Your task to perform on an android device: open a new tab in the chrome app Image 0: 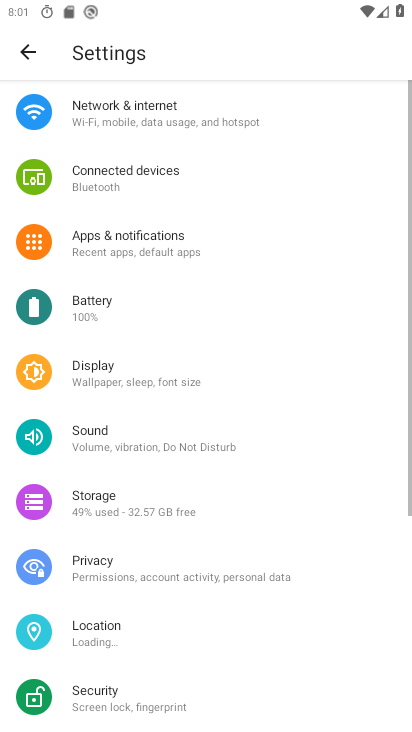
Step 0: press home button
Your task to perform on an android device: open a new tab in the chrome app Image 1: 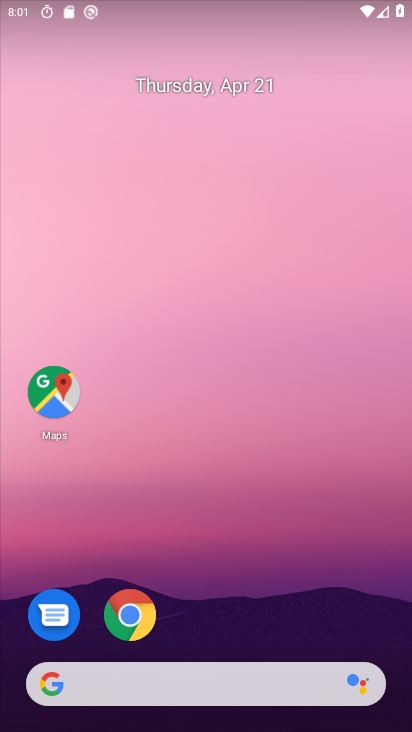
Step 1: drag from (154, 643) to (258, 87)
Your task to perform on an android device: open a new tab in the chrome app Image 2: 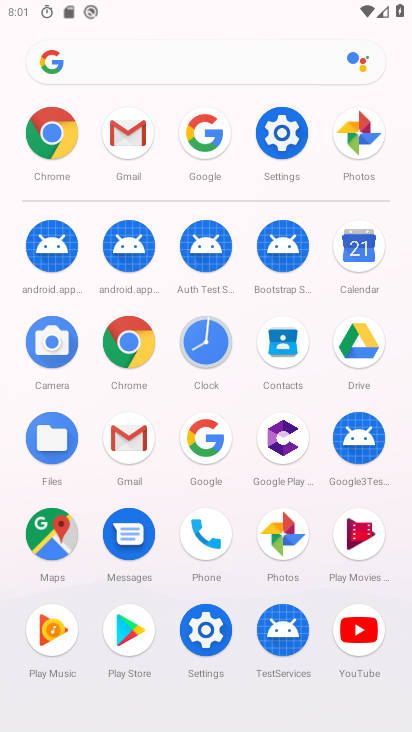
Step 2: click (63, 139)
Your task to perform on an android device: open a new tab in the chrome app Image 3: 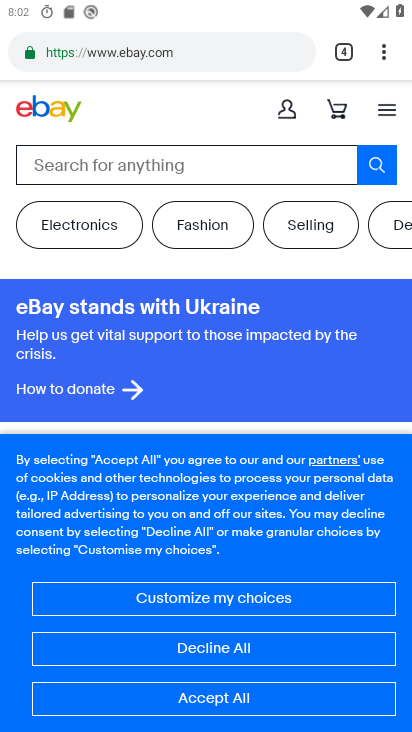
Step 3: click (324, 98)
Your task to perform on an android device: open a new tab in the chrome app Image 4: 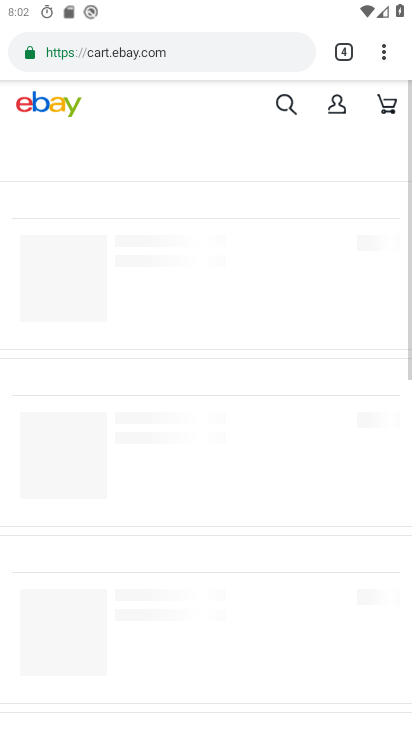
Step 4: click (376, 63)
Your task to perform on an android device: open a new tab in the chrome app Image 5: 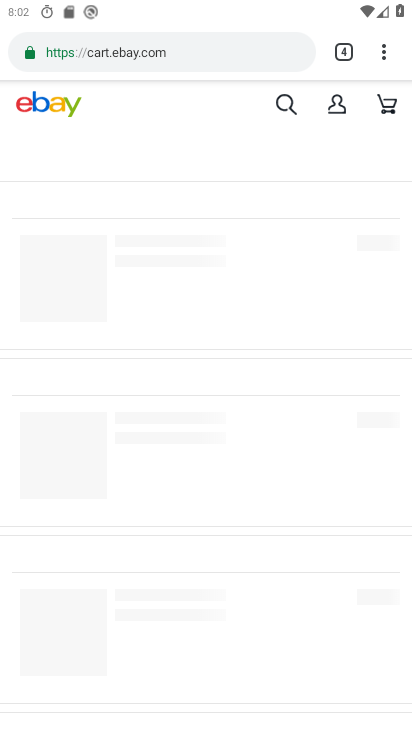
Step 5: click (371, 64)
Your task to perform on an android device: open a new tab in the chrome app Image 6: 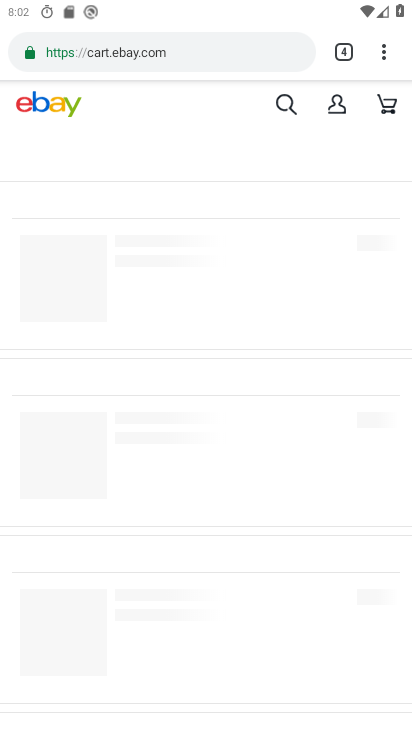
Step 6: click (383, 63)
Your task to perform on an android device: open a new tab in the chrome app Image 7: 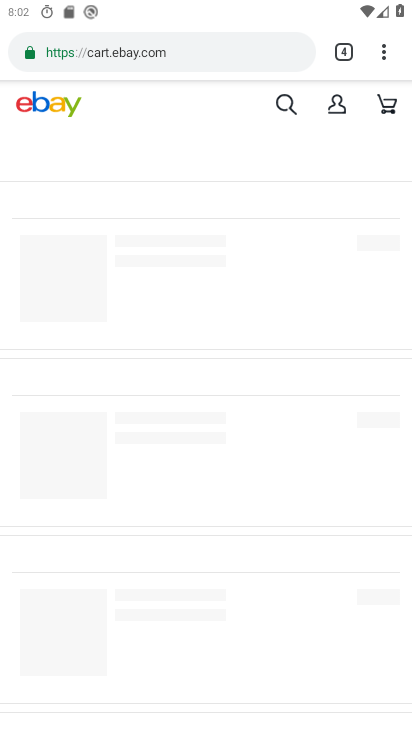
Step 7: click (375, 64)
Your task to perform on an android device: open a new tab in the chrome app Image 8: 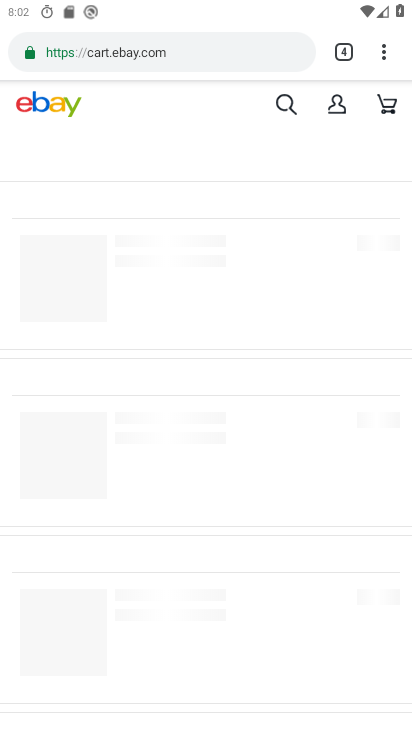
Step 8: click (375, 54)
Your task to perform on an android device: open a new tab in the chrome app Image 9: 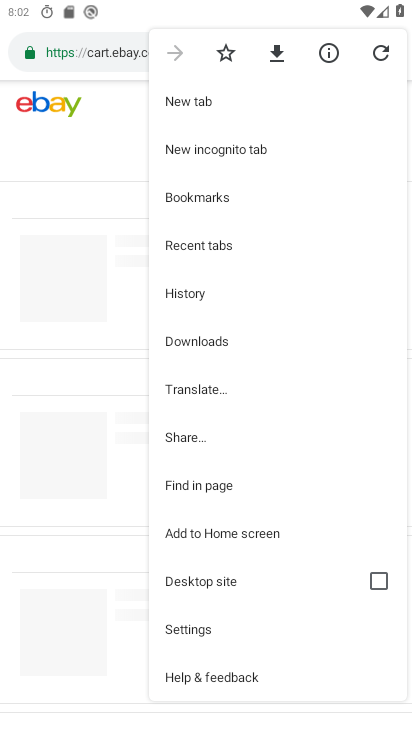
Step 9: click (200, 98)
Your task to perform on an android device: open a new tab in the chrome app Image 10: 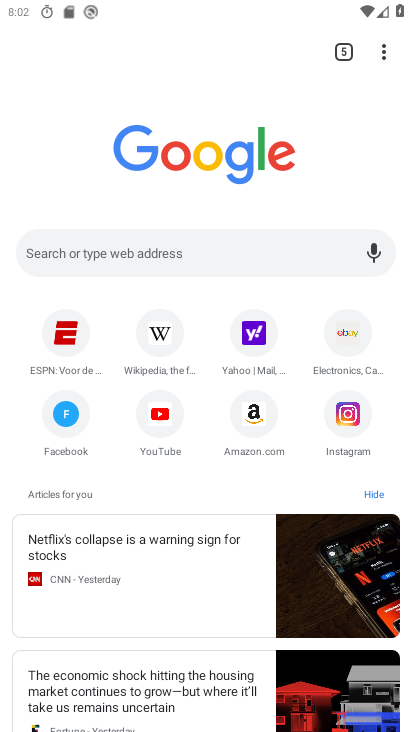
Step 10: task complete